Your task to perform on an android device: turn off wifi Image 0: 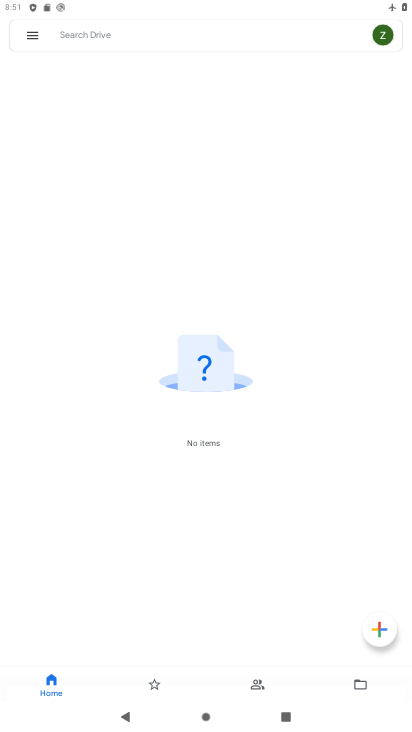
Step 0: press home button
Your task to perform on an android device: turn off wifi Image 1: 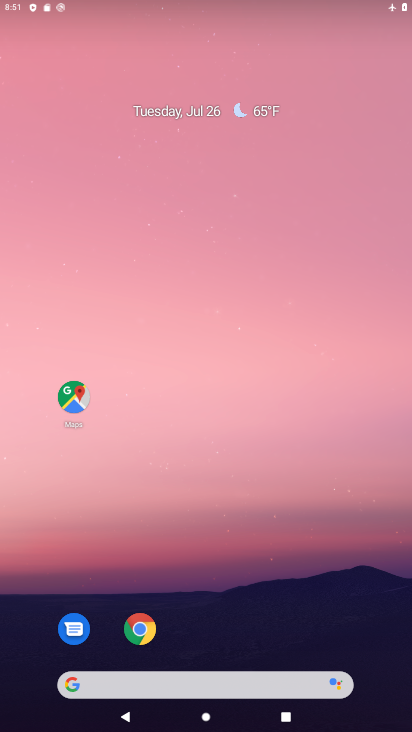
Step 1: drag from (246, 603) to (217, 143)
Your task to perform on an android device: turn off wifi Image 2: 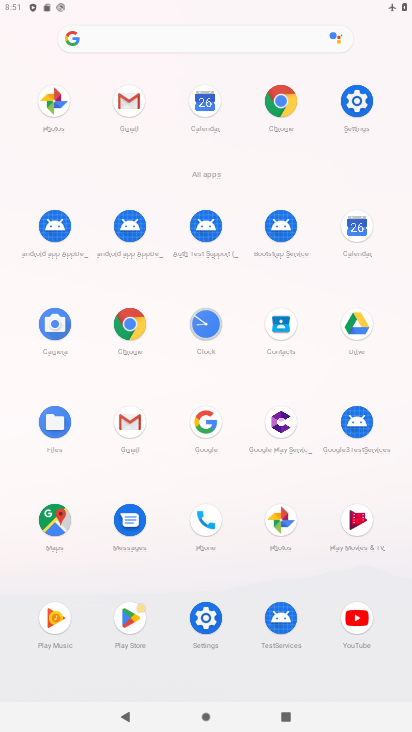
Step 2: click (360, 96)
Your task to perform on an android device: turn off wifi Image 3: 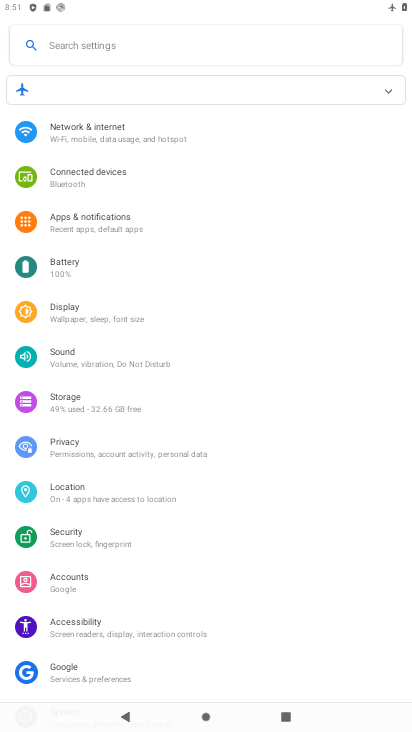
Step 3: click (104, 138)
Your task to perform on an android device: turn off wifi Image 4: 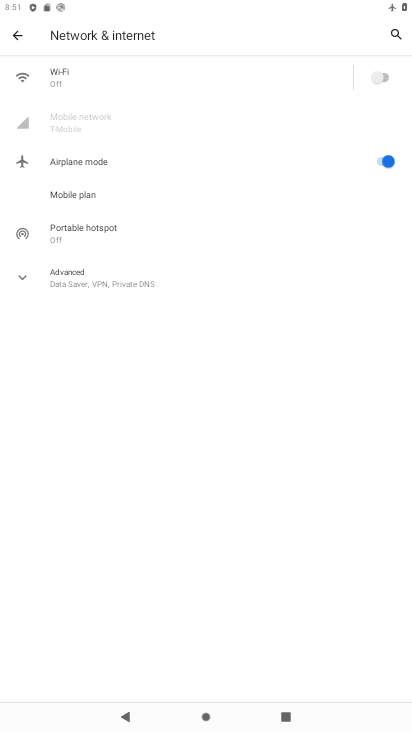
Step 4: task complete